Your task to perform on an android device: see creations saved in the google photos Image 0: 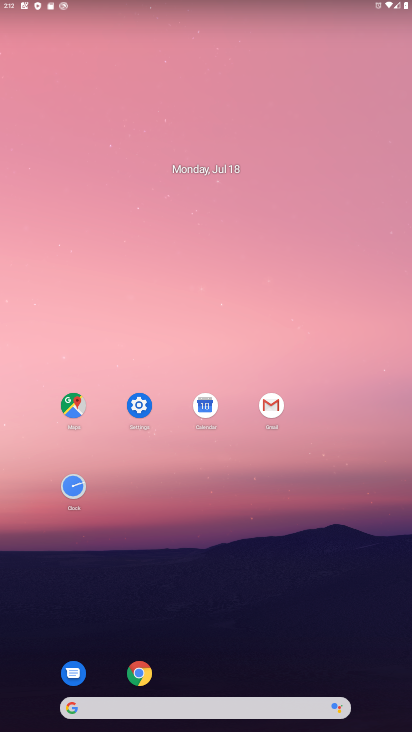
Step 0: drag from (372, 705) to (292, 104)
Your task to perform on an android device: see creations saved in the google photos Image 1: 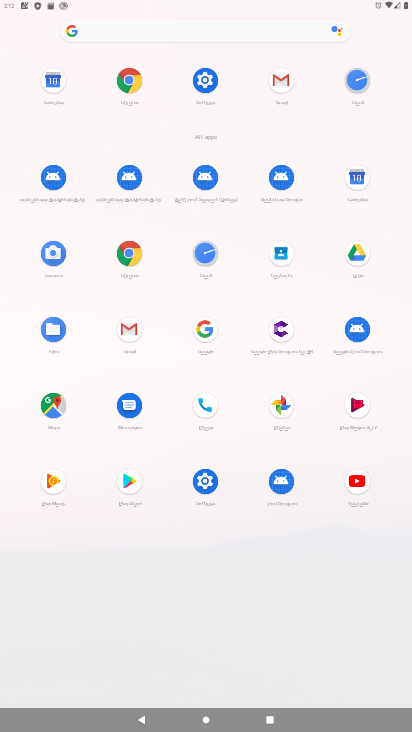
Step 1: click (273, 403)
Your task to perform on an android device: see creations saved in the google photos Image 2: 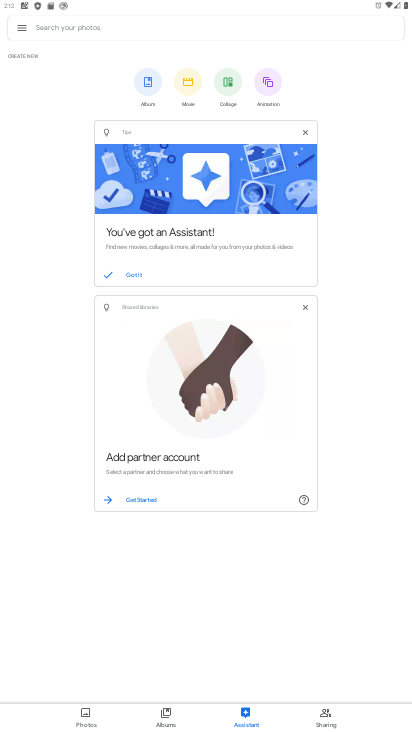
Step 2: click (85, 712)
Your task to perform on an android device: see creations saved in the google photos Image 3: 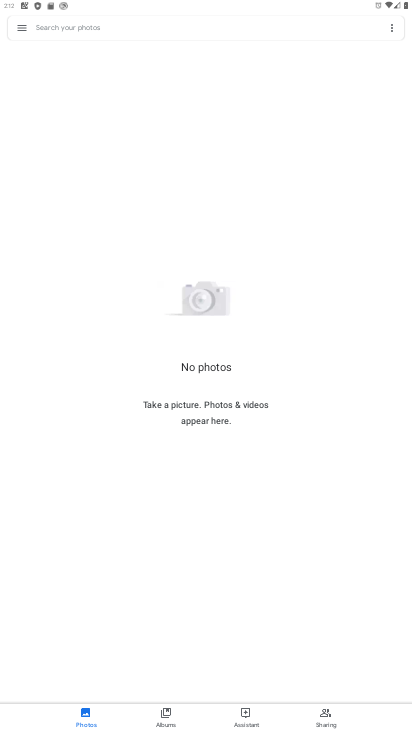
Step 3: task complete